Your task to perform on an android device: Go to notification settings Image 0: 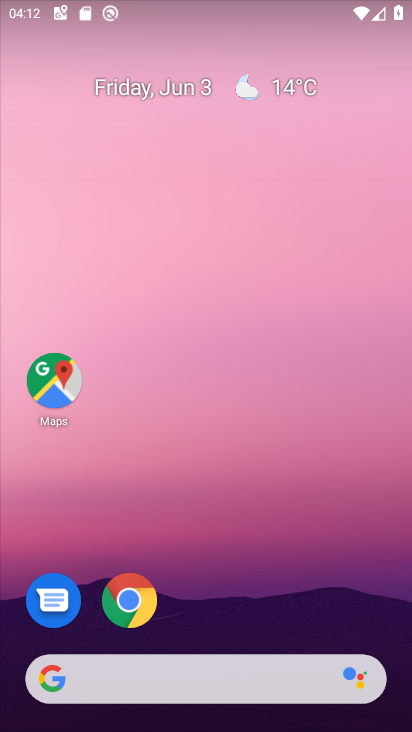
Step 0: drag from (289, 599) to (239, 208)
Your task to perform on an android device: Go to notification settings Image 1: 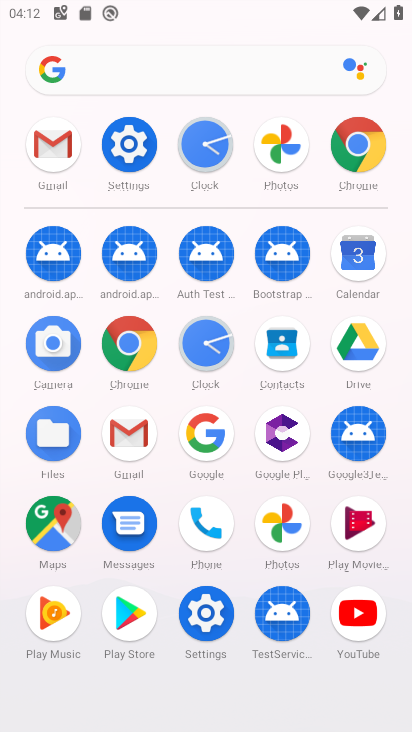
Step 1: click (136, 146)
Your task to perform on an android device: Go to notification settings Image 2: 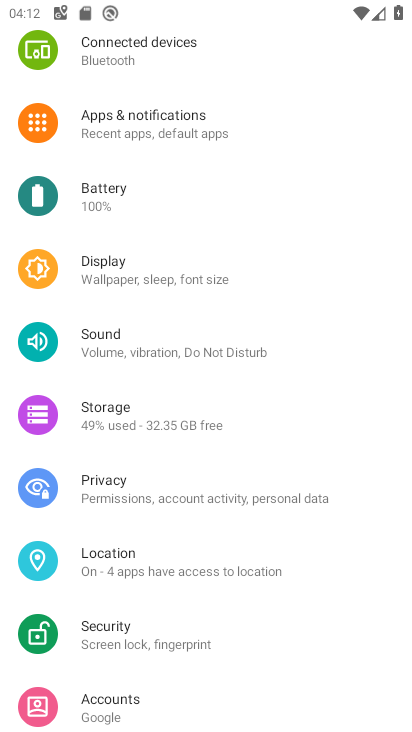
Step 2: click (168, 121)
Your task to perform on an android device: Go to notification settings Image 3: 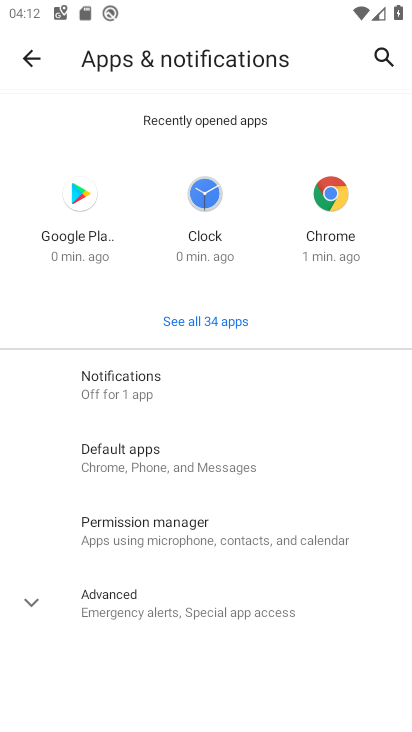
Step 3: click (163, 377)
Your task to perform on an android device: Go to notification settings Image 4: 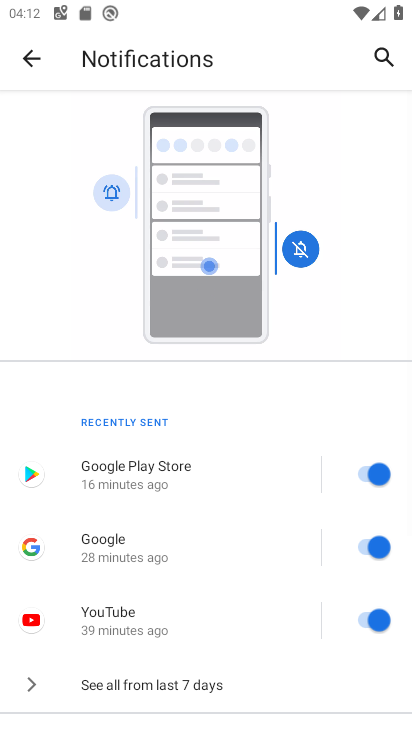
Step 4: task complete